Your task to perform on an android device: turn on airplane mode Image 0: 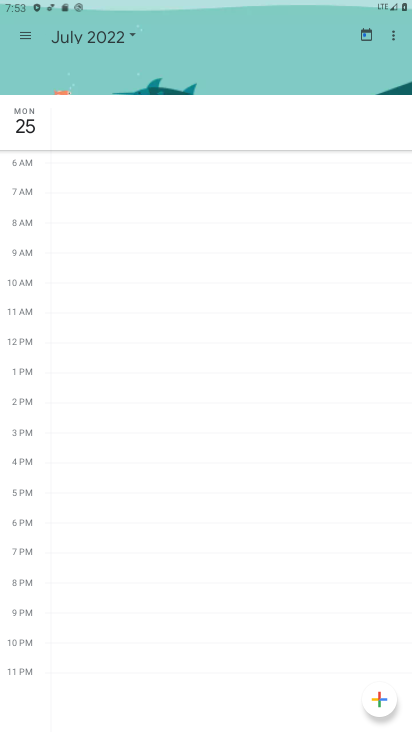
Step 0: press home button
Your task to perform on an android device: turn on airplane mode Image 1: 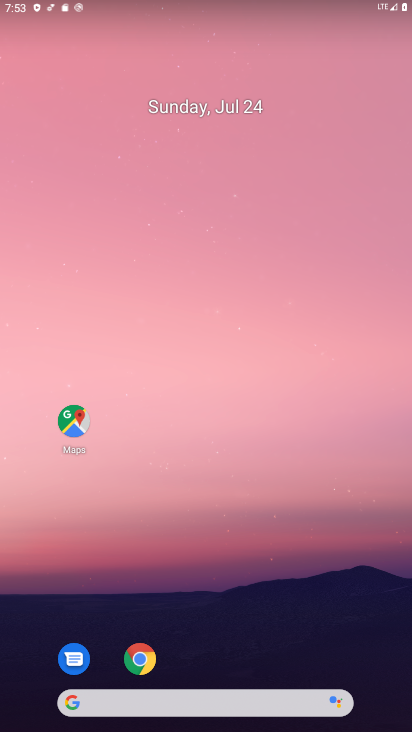
Step 1: drag from (211, 723) to (183, 187)
Your task to perform on an android device: turn on airplane mode Image 2: 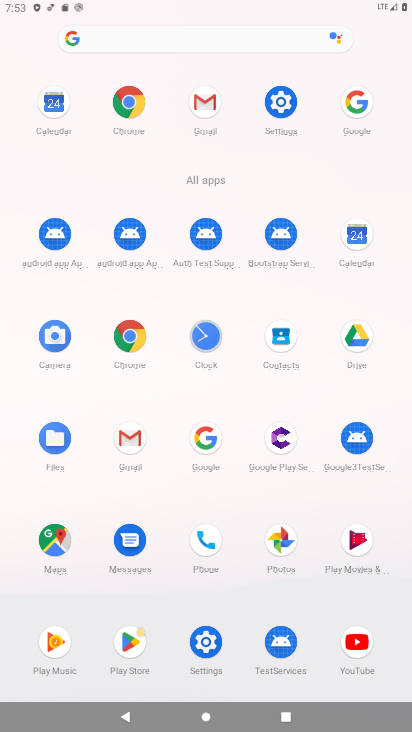
Step 2: click (290, 103)
Your task to perform on an android device: turn on airplane mode Image 3: 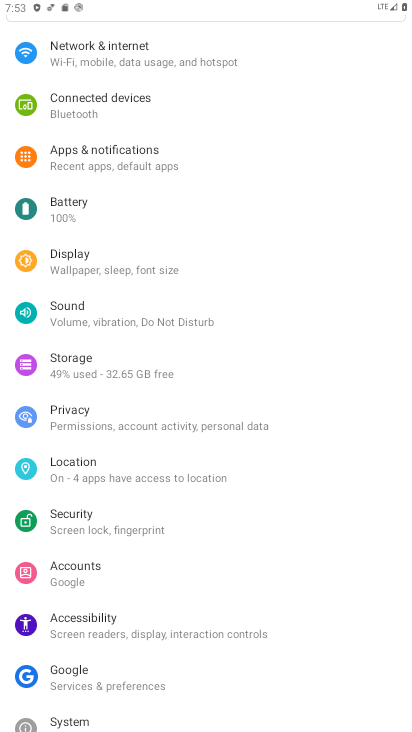
Step 3: click (134, 57)
Your task to perform on an android device: turn on airplane mode Image 4: 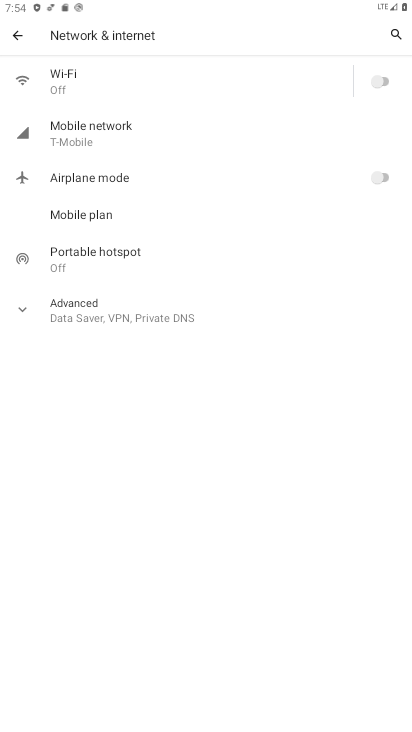
Step 4: click (389, 177)
Your task to perform on an android device: turn on airplane mode Image 5: 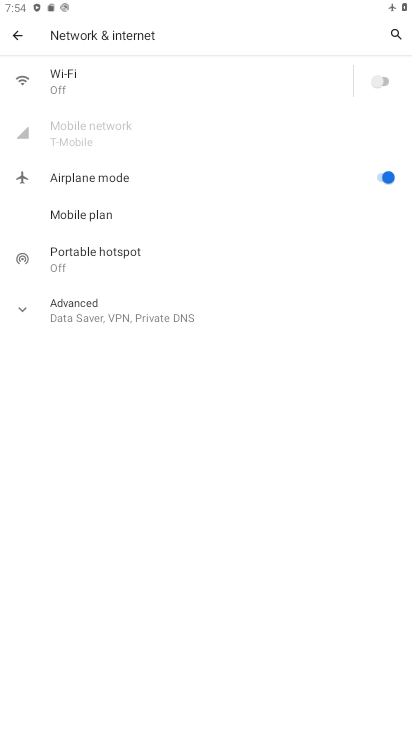
Step 5: task complete